Your task to perform on an android device: change the clock style Image 0: 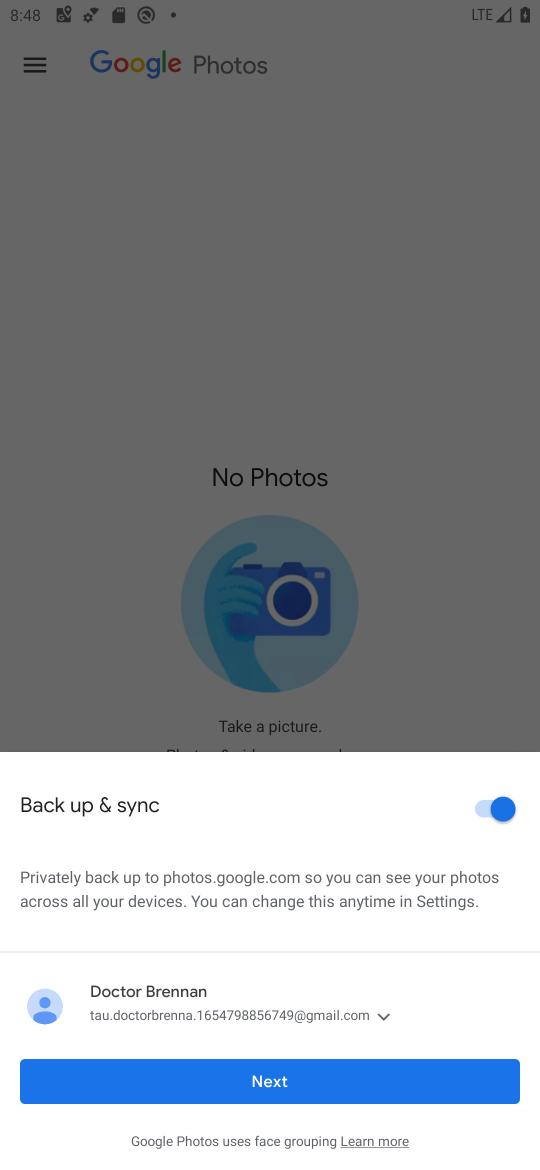
Step 0: press home button
Your task to perform on an android device: change the clock style Image 1: 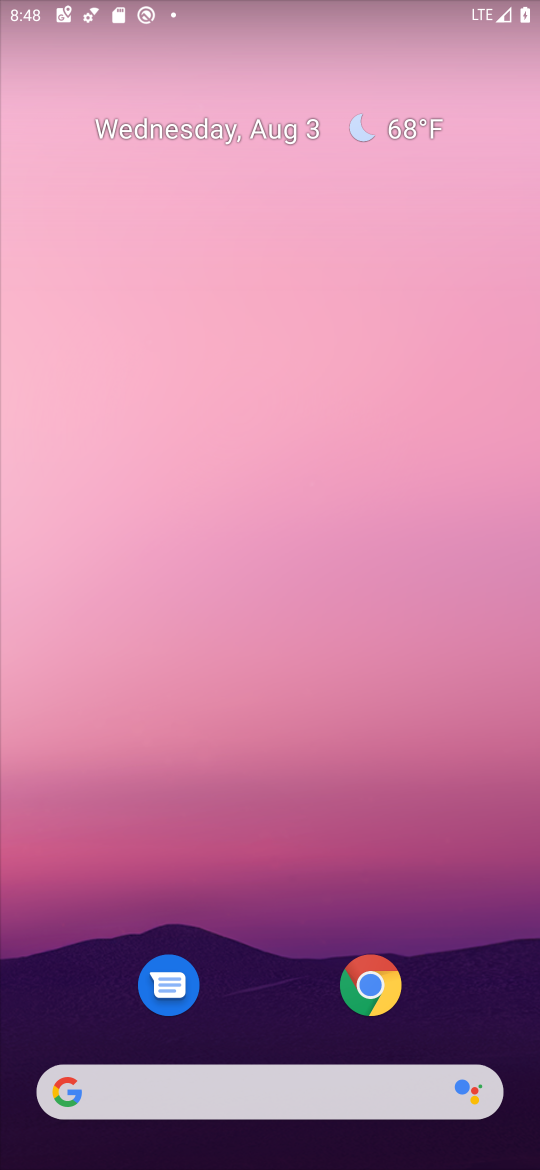
Step 1: drag from (244, 976) to (171, 277)
Your task to perform on an android device: change the clock style Image 2: 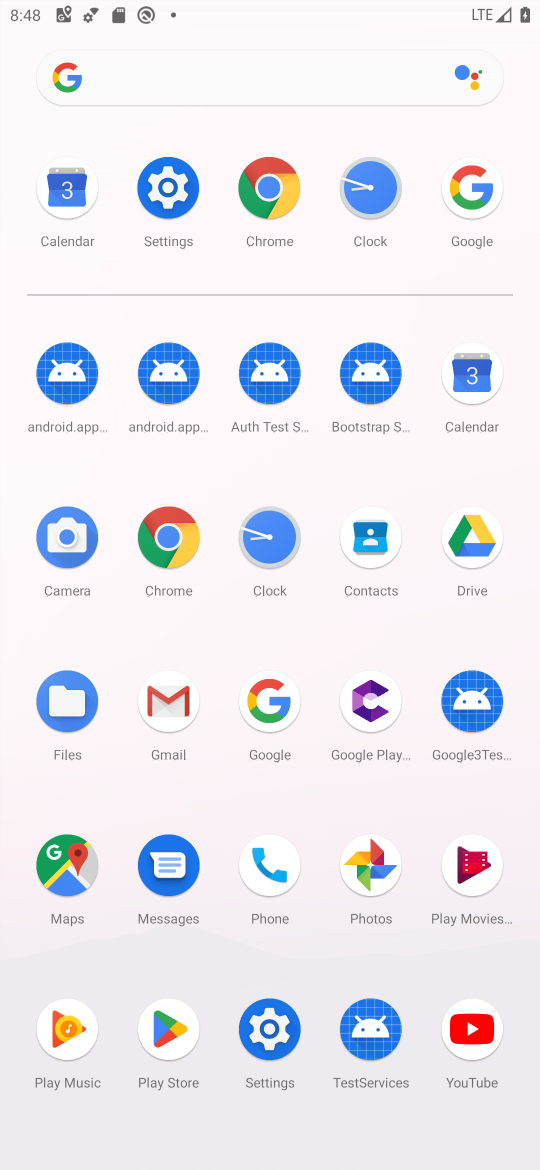
Step 2: click (269, 562)
Your task to perform on an android device: change the clock style Image 3: 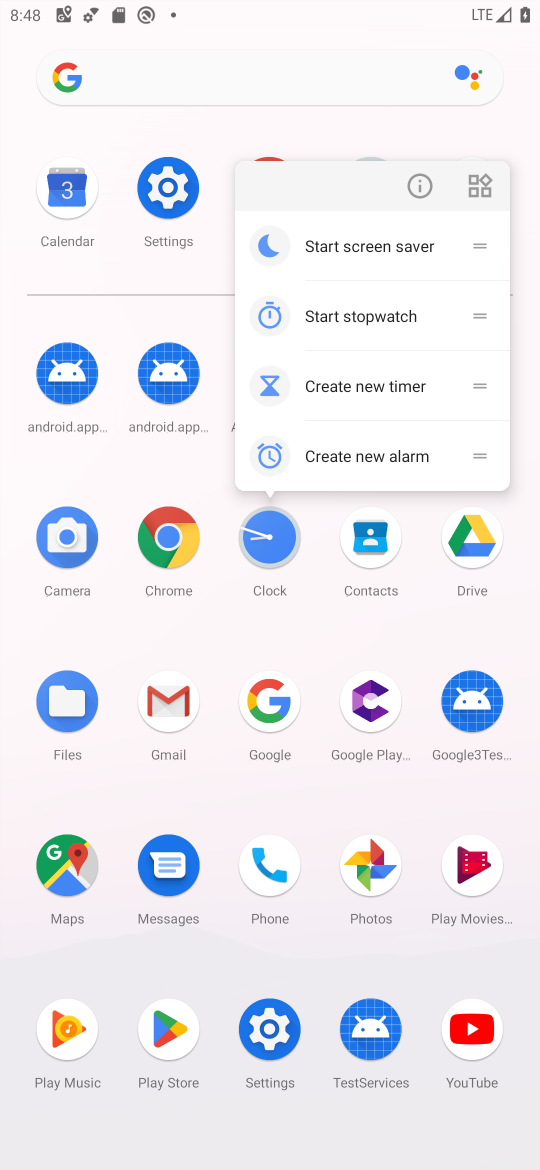
Step 3: click (269, 562)
Your task to perform on an android device: change the clock style Image 4: 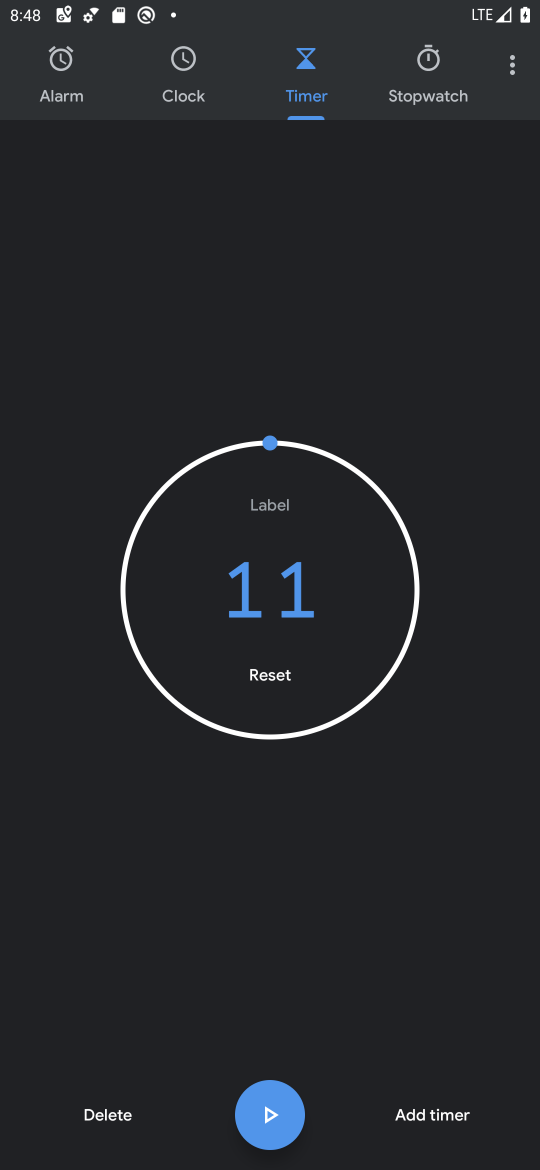
Step 4: click (514, 84)
Your task to perform on an android device: change the clock style Image 5: 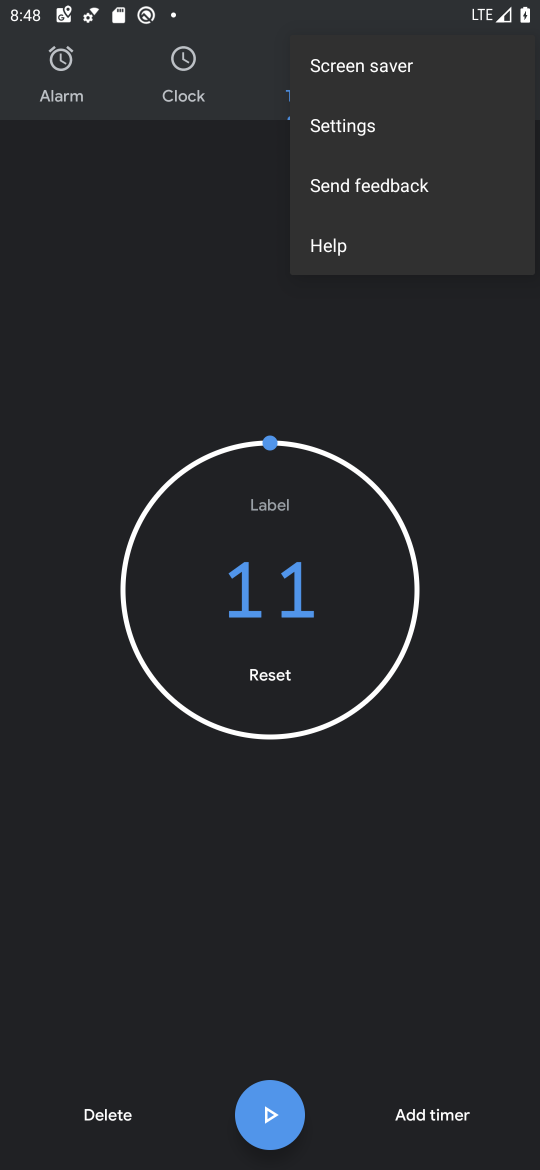
Step 5: click (382, 128)
Your task to perform on an android device: change the clock style Image 6: 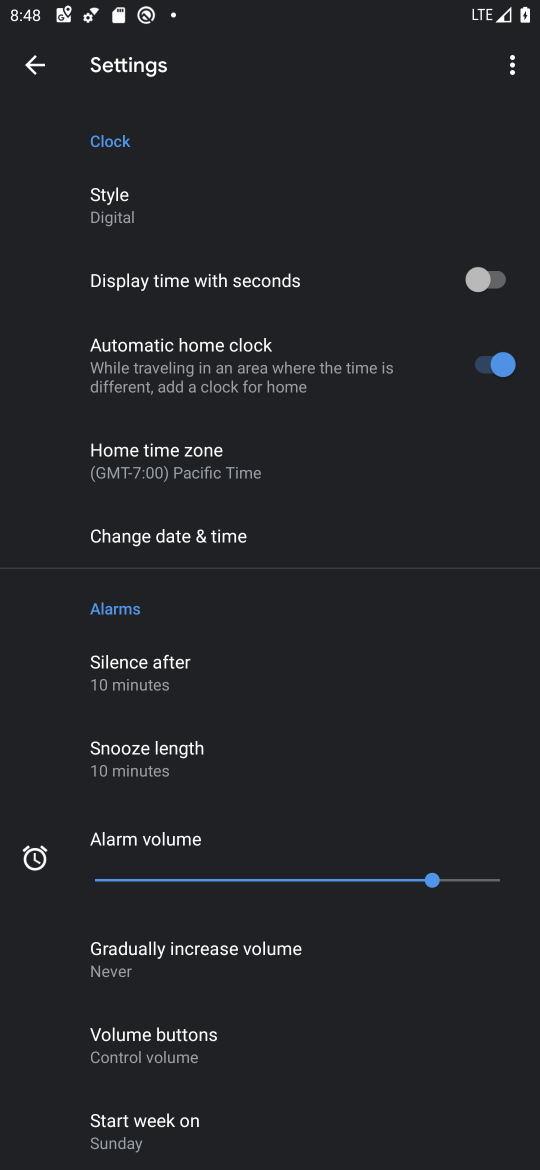
Step 6: click (158, 187)
Your task to perform on an android device: change the clock style Image 7: 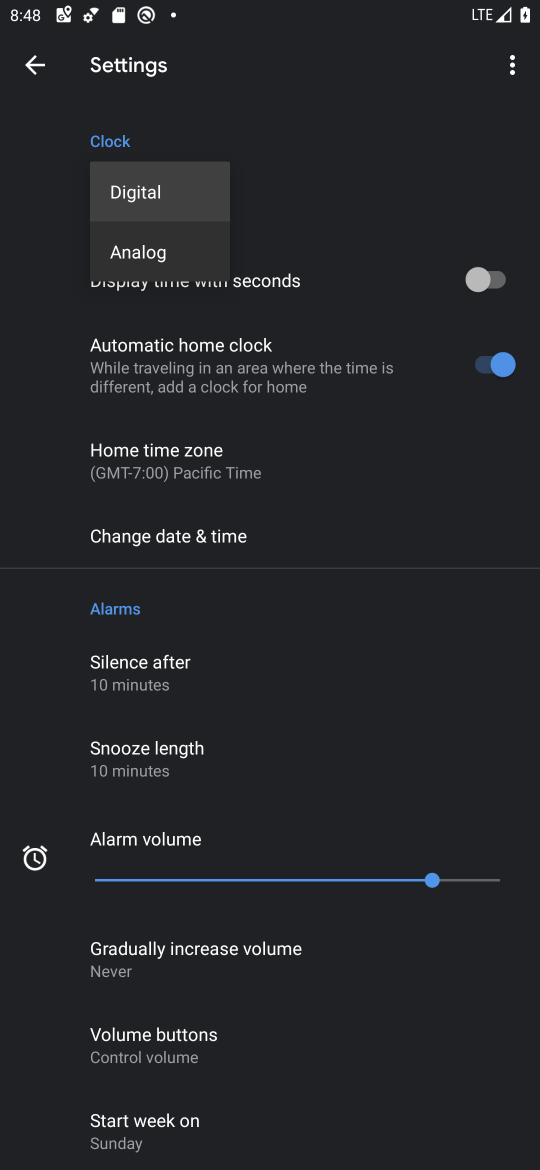
Step 7: click (162, 246)
Your task to perform on an android device: change the clock style Image 8: 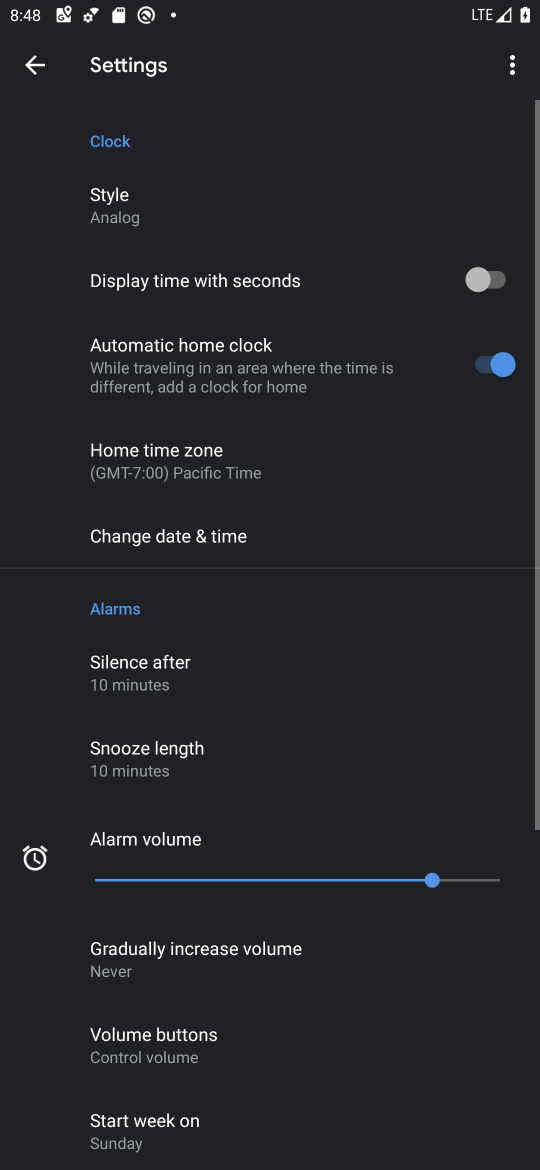
Step 8: task complete